Your task to perform on an android device: change the clock display to show seconds Image 0: 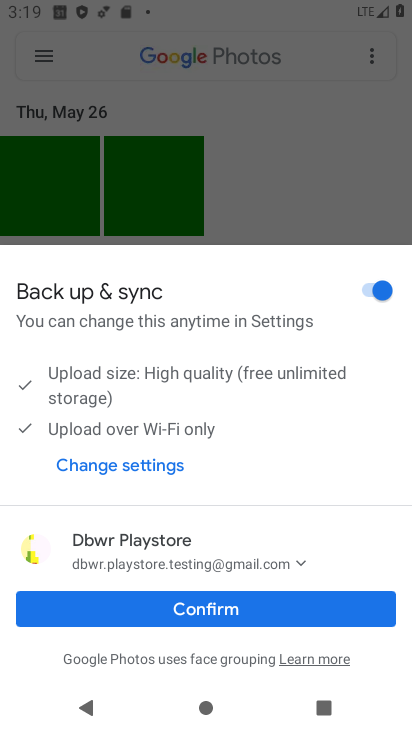
Step 0: press home button
Your task to perform on an android device: change the clock display to show seconds Image 1: 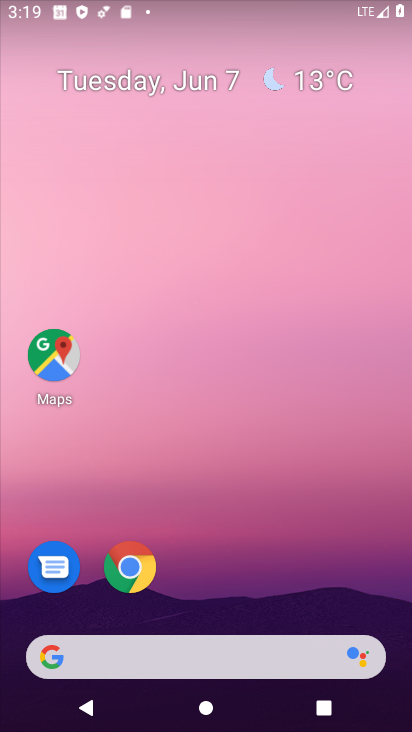
Step 1: drag from (258, 581) to (347, 34)
Your task to perform on an android device: change the clock display to show seconds Image 2: 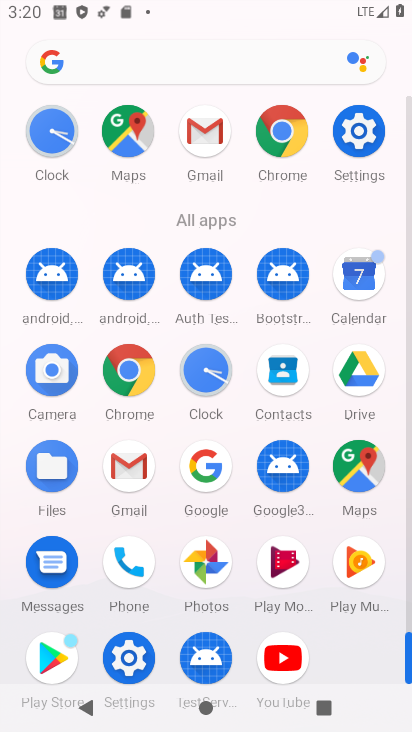
Step 2: click (219, 371)
Your task to perform on an android device: change the clock display to show seconds Image 3: 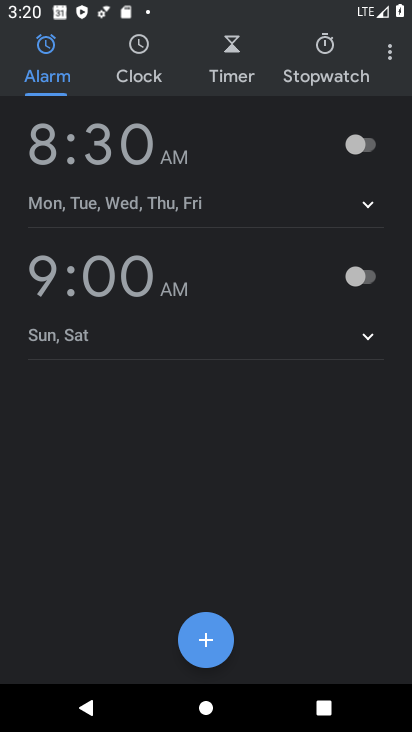
Step 3: click (386, 59)
Your task to perform on an android device: change the clock display to show seconds Image 4: 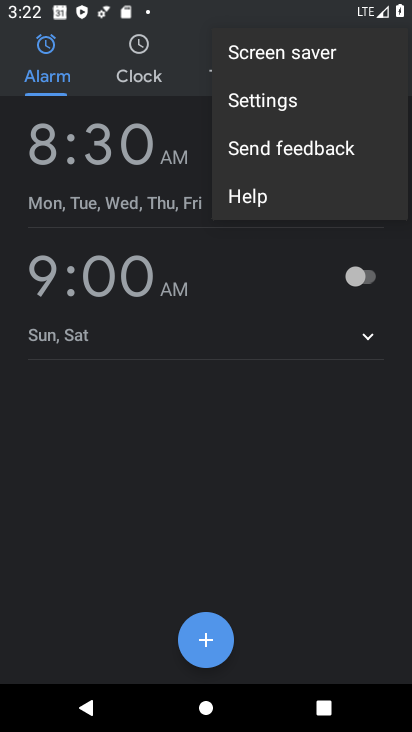
Step 4: click (295, 110)
Your task to perform on an android device: change the clock display to show seconds Image 5: 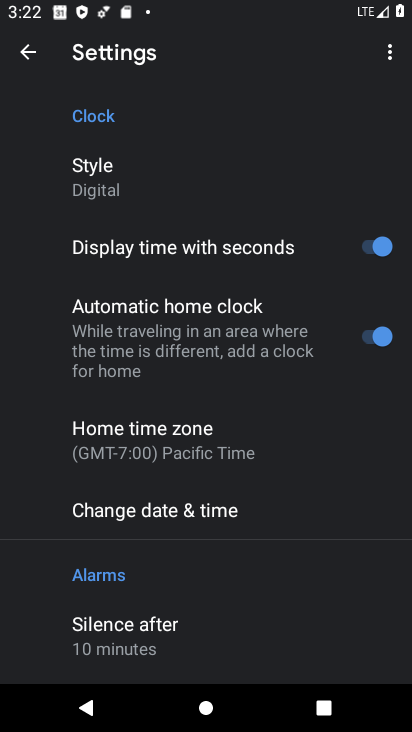
Step 5: task complete